Your task to perform on an android device: Open my contact list Image 0: 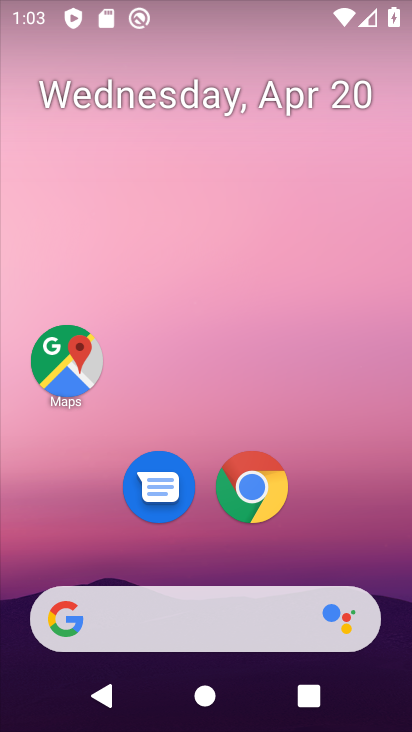
Step 0: drag from (367, 544) to (272, 31)
Your task to perform on an android device: Open my contact list Image 1: 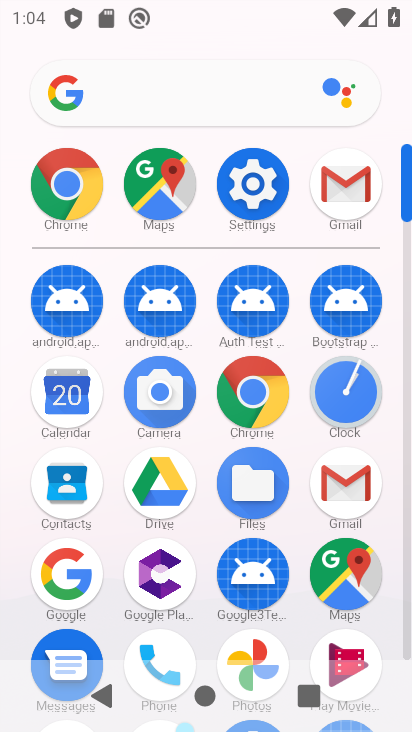
Step 1: click (69, 477)
Your task to perform on an android device: Open my contact list Image 2: 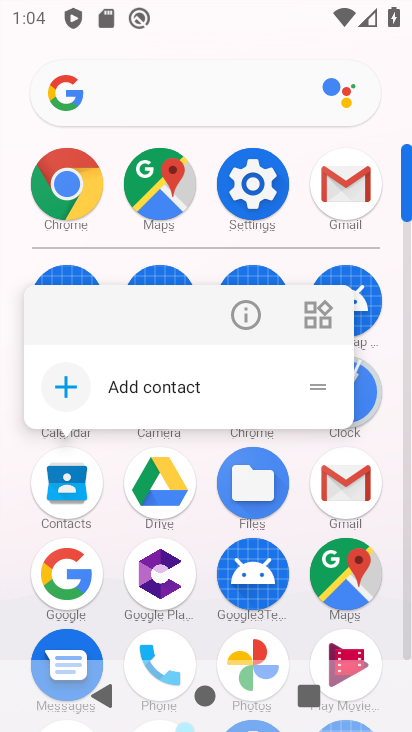
Step 2: click (69, 477)
Your task to perform on an android device: Open my contact list Image 3: 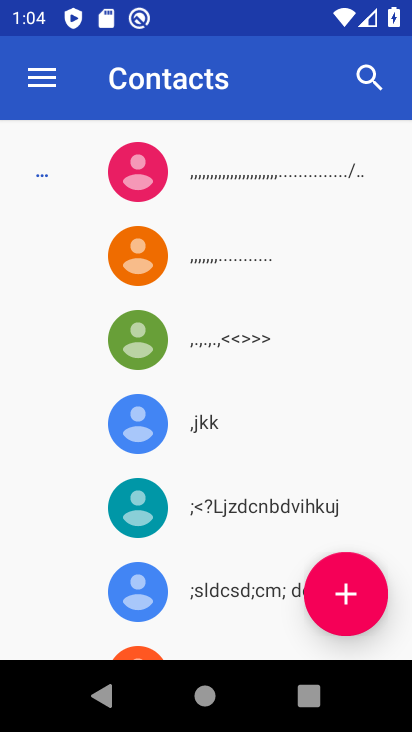
Step 3: task complete